Your task to perform on an android device: What's the weather? Image 0: 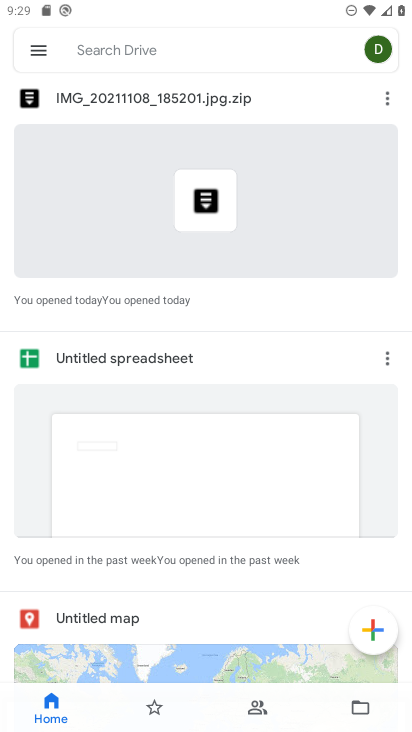
Step 0: press home button
Your task to perform on an android device: What's the weather? Image 1: 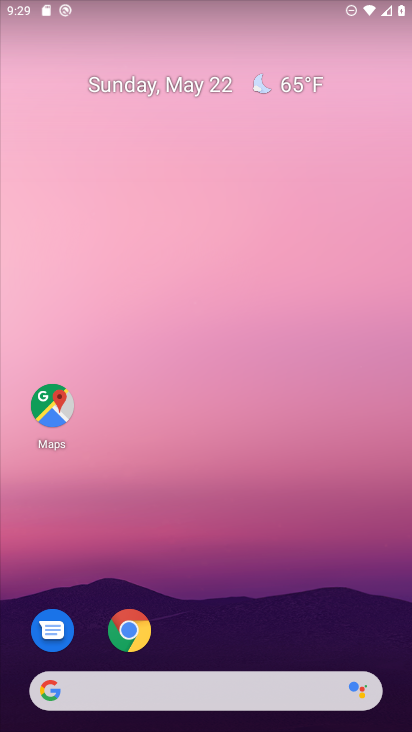
Step 1: click (56, 693)
Your task to perform on an android device: What's the weather? Image 2: 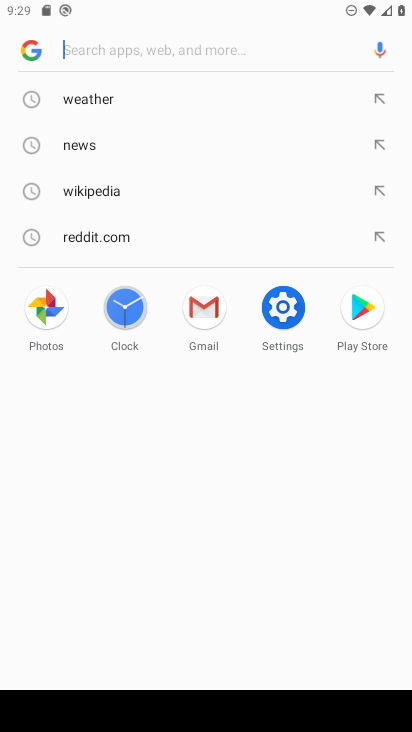
Step 2: click (71, 97)
Your task to perform on an android device: What's the weather? Image 3: 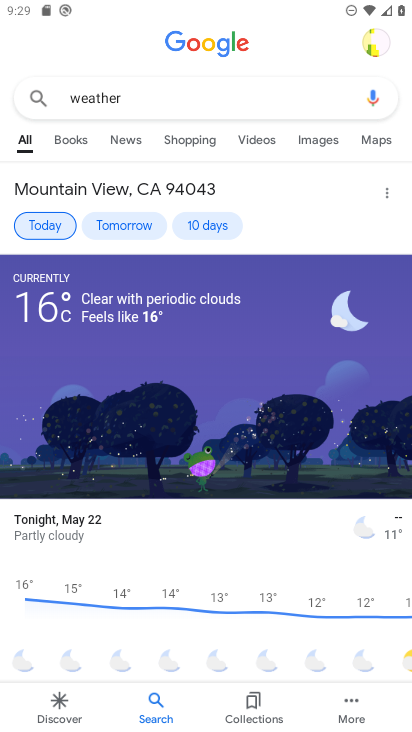
Step 3: task complete